Your task to perform on an android device: Go to Google Image 0: 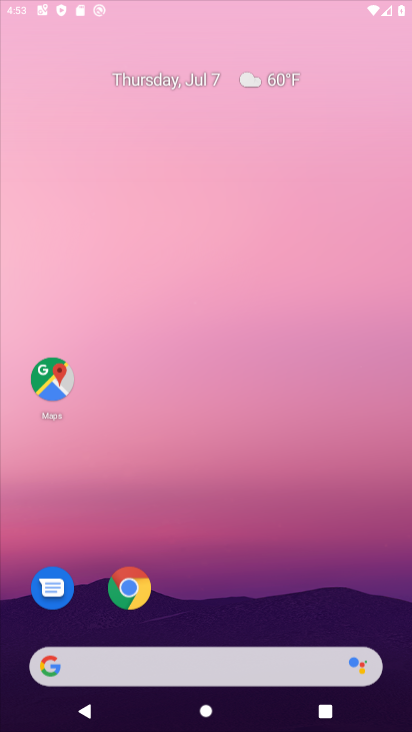
Step 0: click (200, 115)
Your task to perform on an android device: Go to Google Image 1: 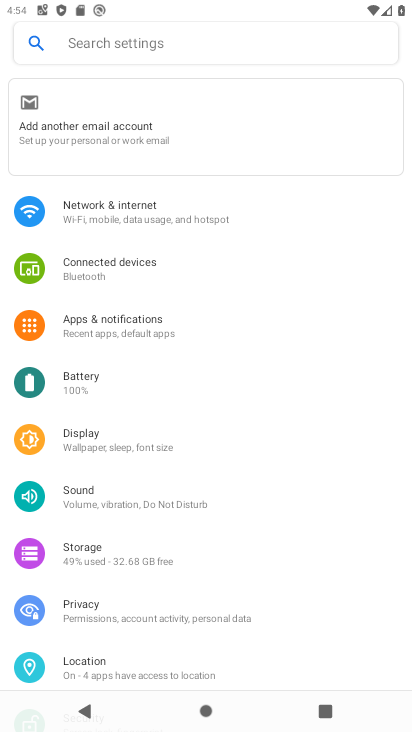
Step 1: press back button
Your task to perform on an android device: Go to Google Image 2: 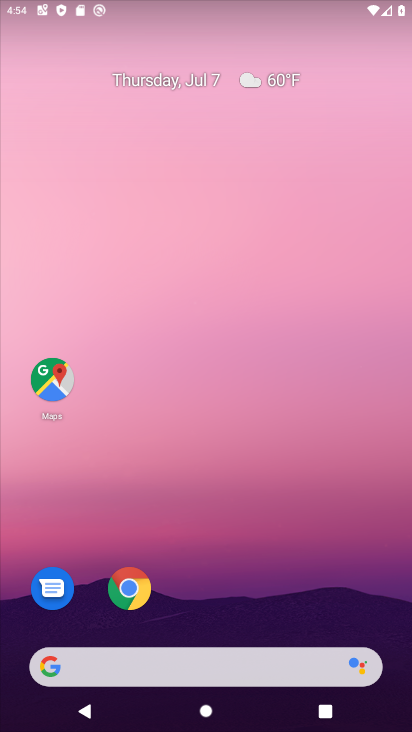
Step 2: drag from (153, 631) to (219, 104)
Your task to perform on an android device: Go to Google Image 3: 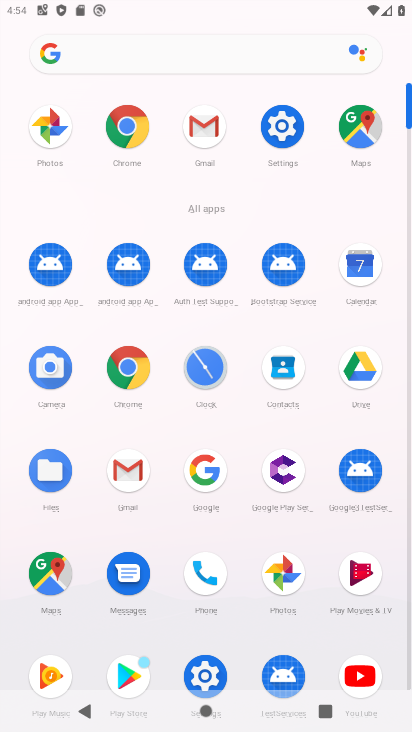
Step 3: click (206, 462)
Your task to perform on an android device: Go to Google Image 4: 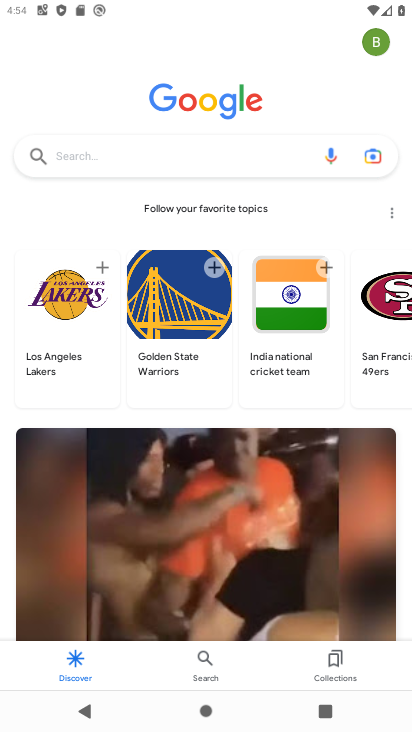
Step 4: task complete